Your task to perform on an android device: add a contact Image 0: 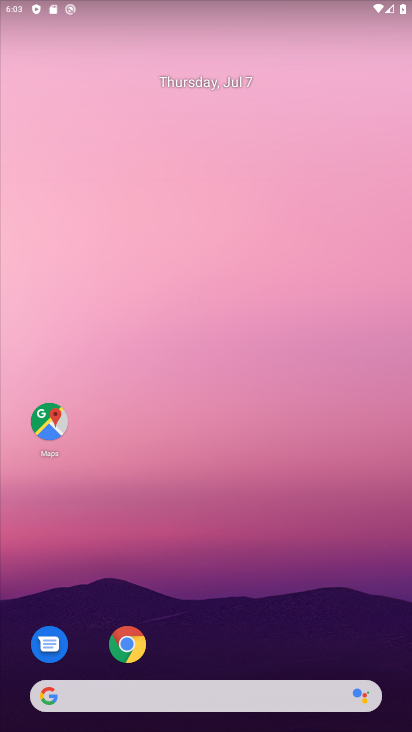
Step 0: drag from (244, 676) to (245, 108)
Your task to perform on an android device: add a contact Image 1: 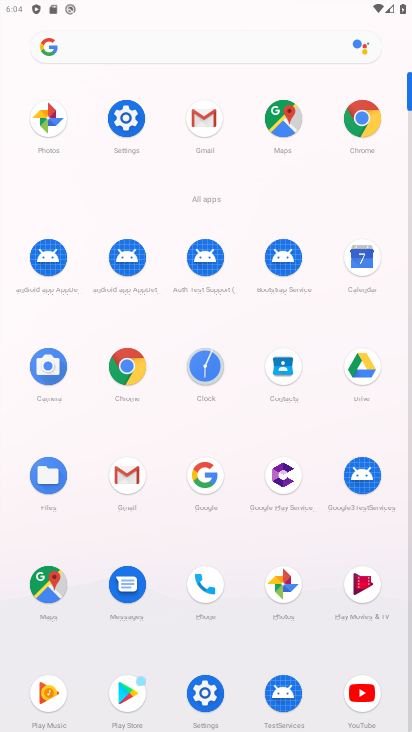
Step 1: click (275, 374)
Your task to perform on an android device: add a contact Image 2: 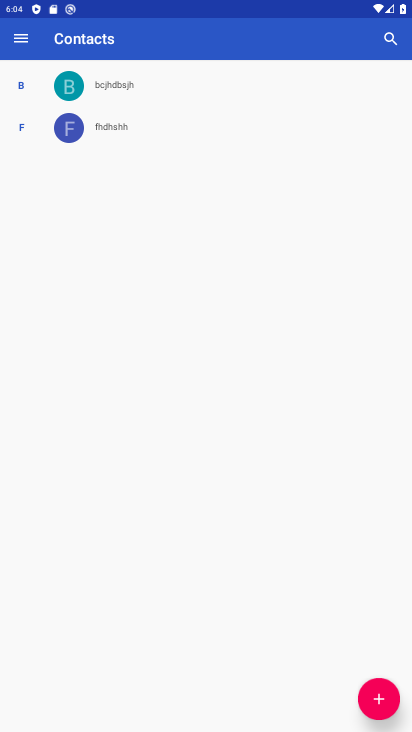
Step 2: click (382, 705)
Your task to perform on an android device: add a contact Image 3: 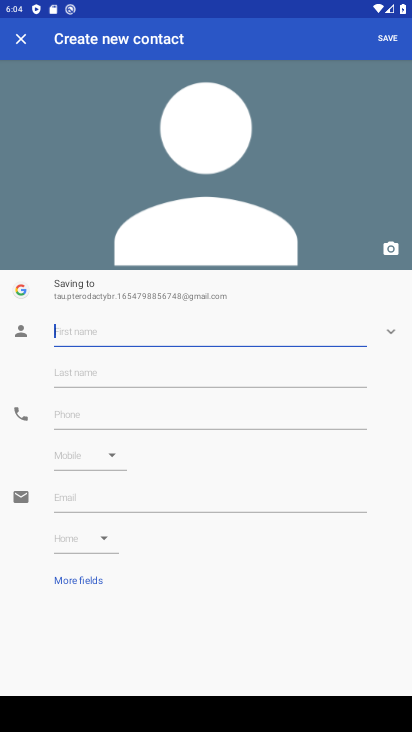
Step 3: type "via"
Your task to perform on an android device: add a contact Image 4: 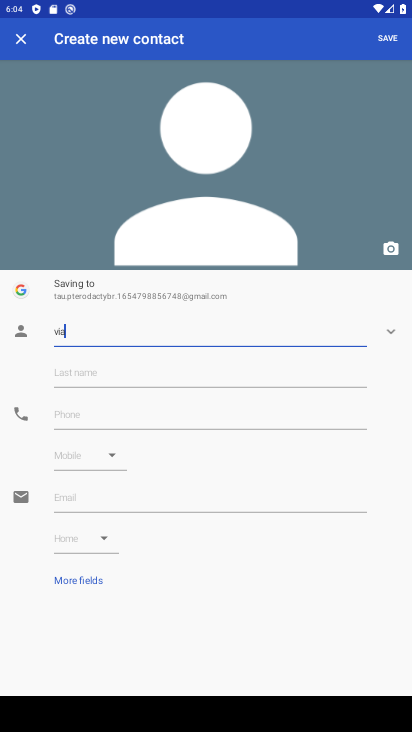
Step 4: click (172, 403)
Your task to perform on an android device: add a contact Image 5: 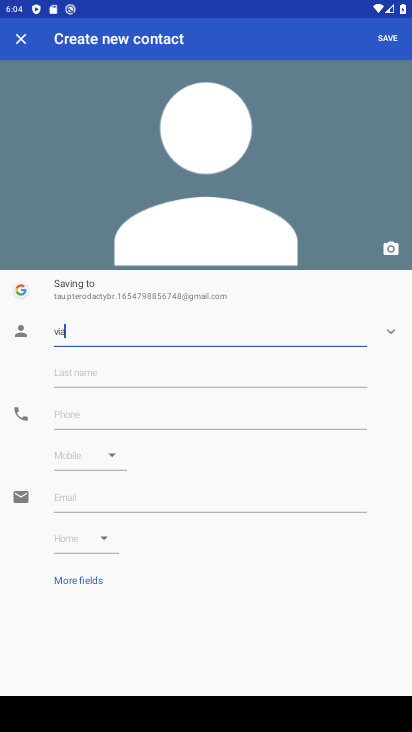
Step 5: click (172, 403)
Your task to perform on an android device: add a contact Image 6: 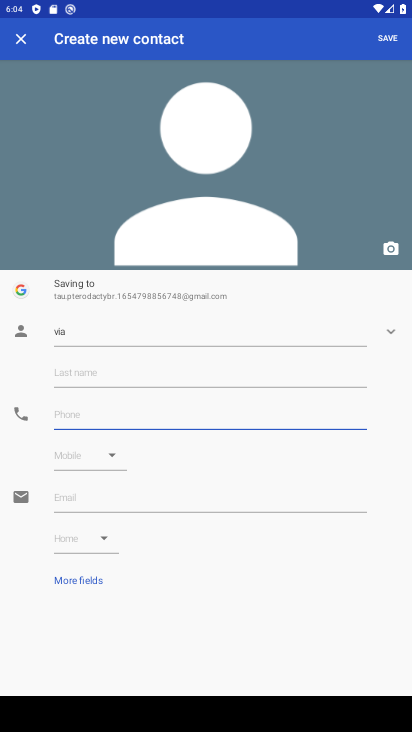
Step 6: type "58"
Your task to perform on an android device: add a contact Image 7: 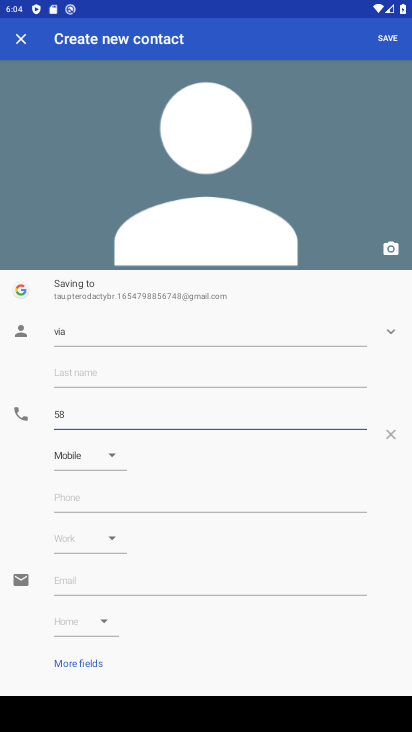
Step 7: click (375, 36)
Your task to perform on an android device: add a contact Image 8: 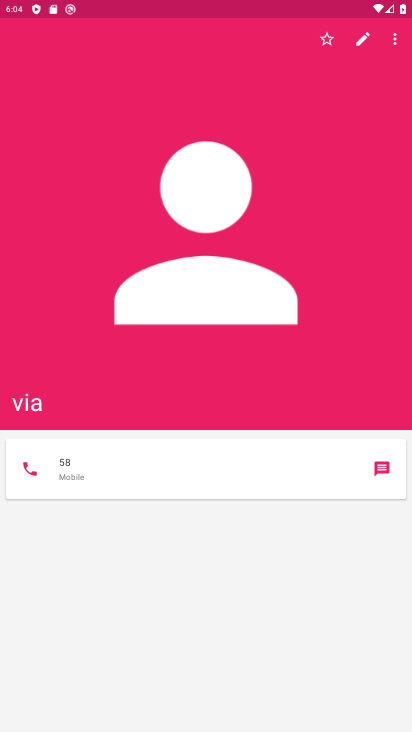
Step 8: task complete